Your task to perform on an android device: Do I have any events today? Image 0: 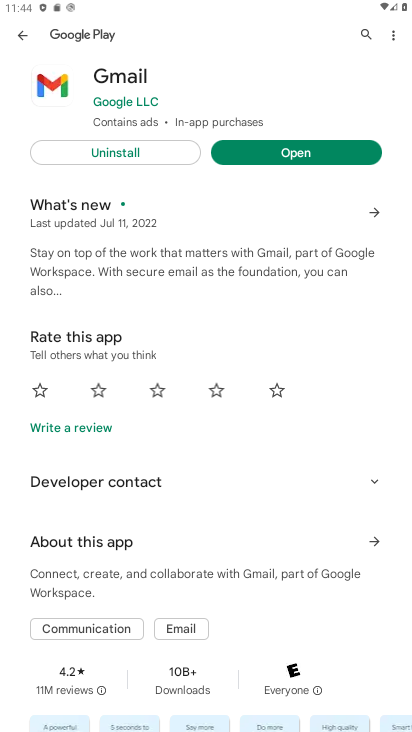
Step 0: press home button
Your task to perform on an android device: Do I have any events today? Image 1: 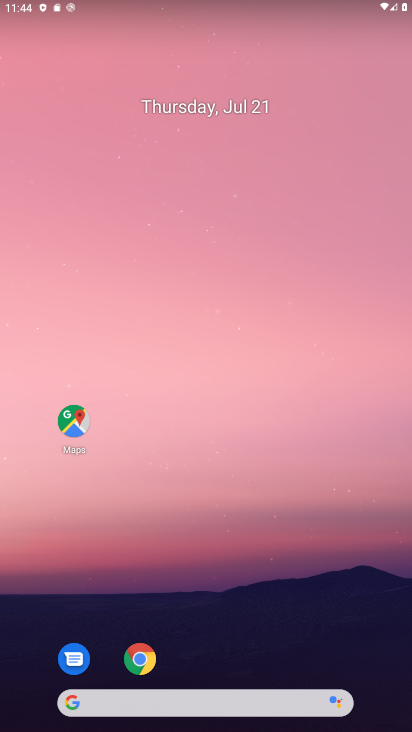
Step 1: drag from (295, 631) to (256, 88)
Your task to perform on an android device: Do I have any events today? Image 2: 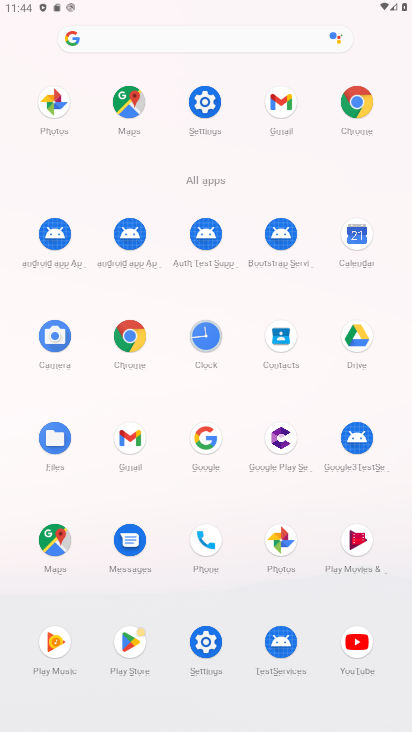
Step 2: click (351, 258)
Your task to perform on an android device: Do I have any events today? Image 3: 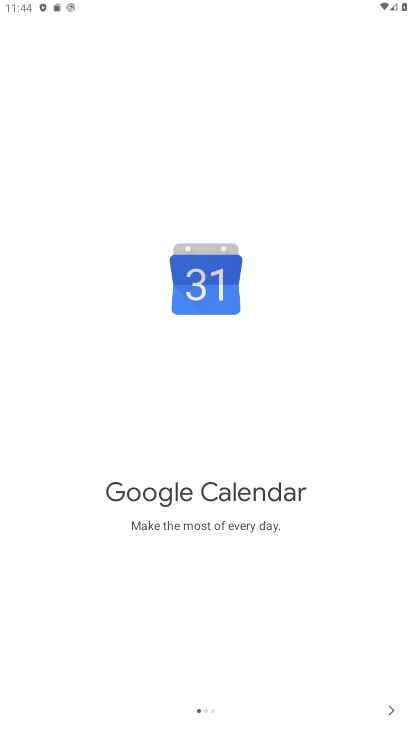
Step 3: click (385, 705)
Your task to perform on an android device: Do I have any events today? Image 4: 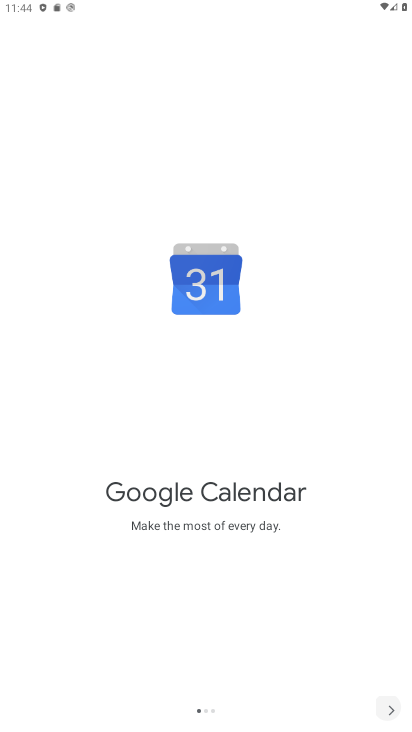
Step 4: click (385, 705)
Your task to perform on an android device: Do I have any events today? Image 5: 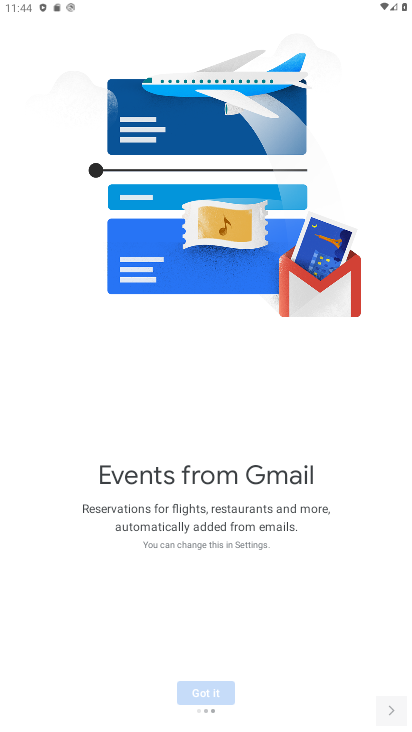
Step 5: click (385, 705)
Your task to perform on an android device: Do I have any events today? Image 6: 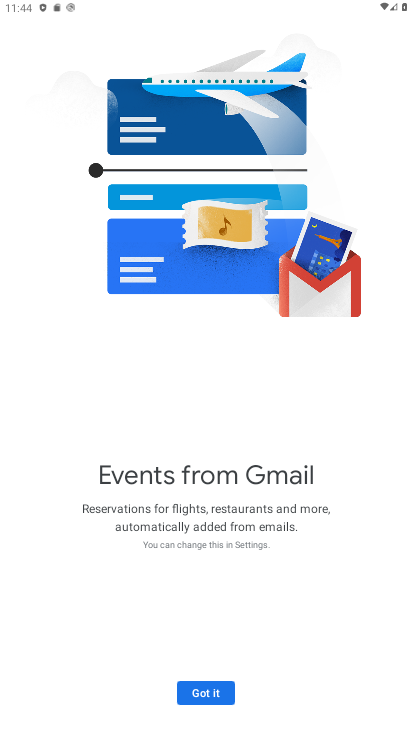
Step 6: click (385, 705)
Your task to perform on an android device: Do I have any events today? Image 7: 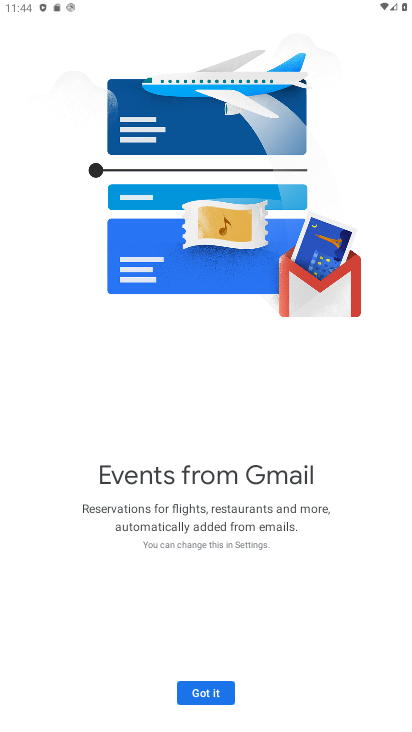
Step 7: click (213, 693)
Your task to perform on an android device: Do I have any events today? Image 8: 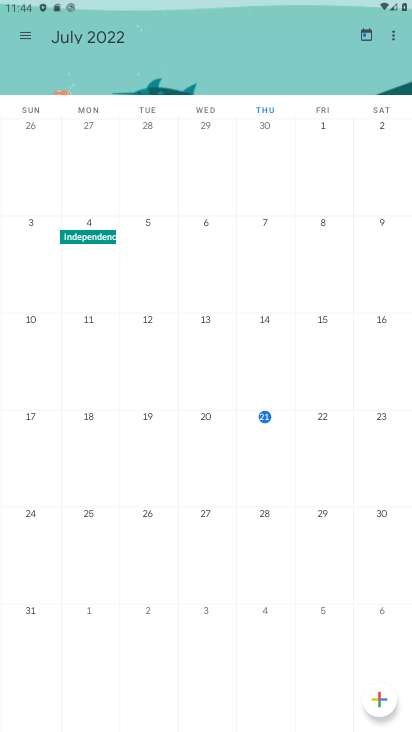
Step 8: task complete